Your task to perform on an android device: Go to CNN.com Image 0: 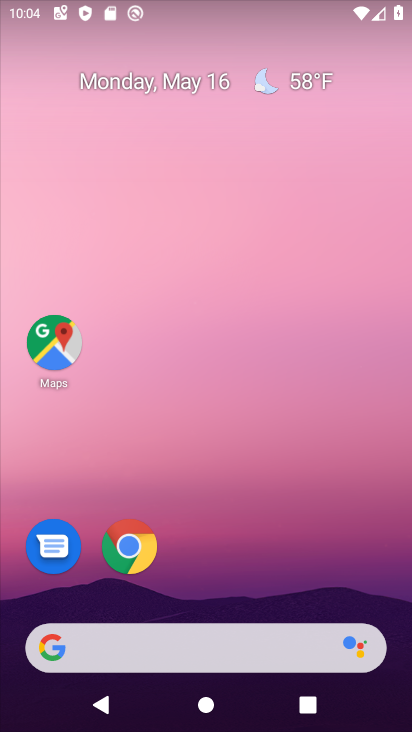
Step 0: click (128, 546)
Your task to perform on an android device: Go to CNN.com Image 1: 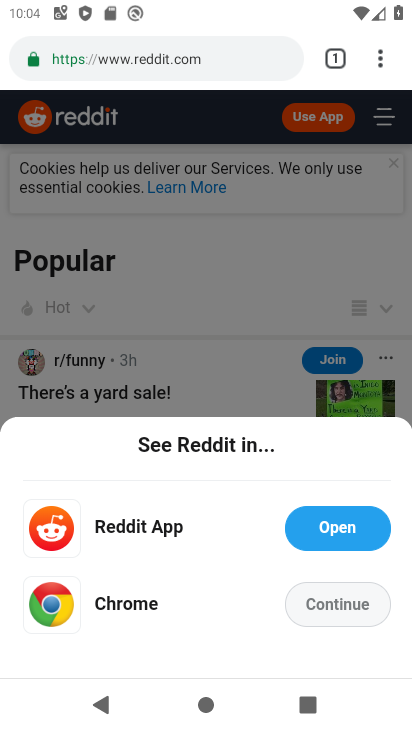
Step 1: click (382, 59)
Your task to perform on an android device: Go to CNN.com Image 2: 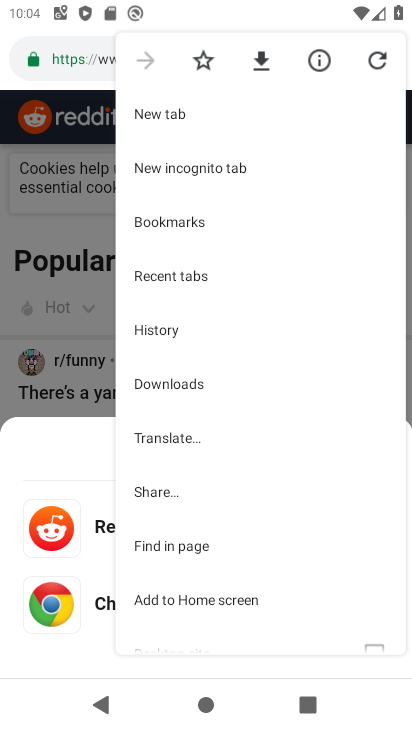
Step 2: click (172, 116)
Your task to perform on an android device: Go to CNN.com Image 3: 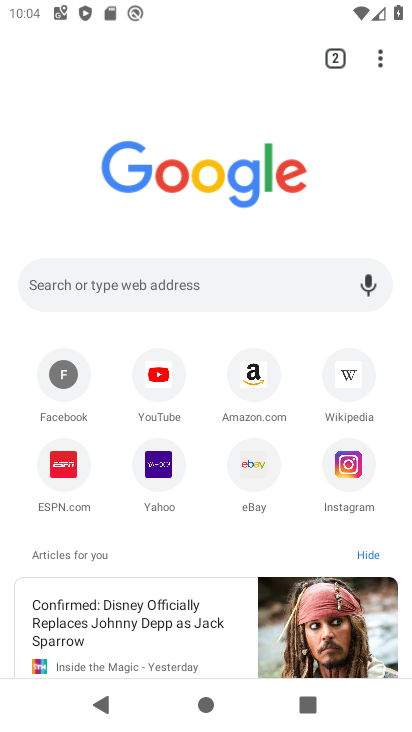
Step 3: click (184, 287)
Your task to perform on an android device: Go to CNN.com Image 4: 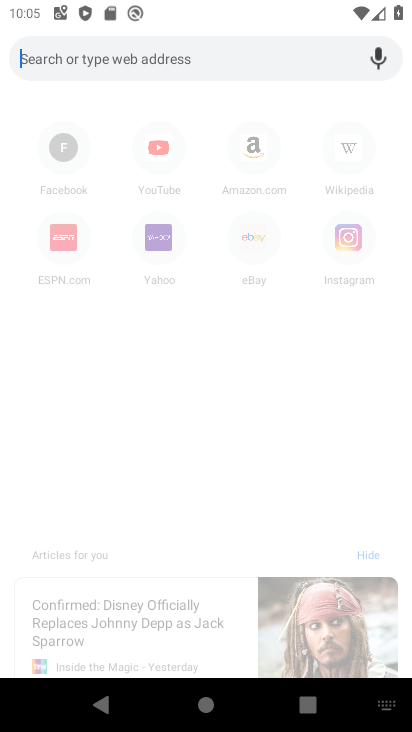
Step 4: type "CNN.com"
Your task to perform on an android device: Go to CNN.com Image 5: 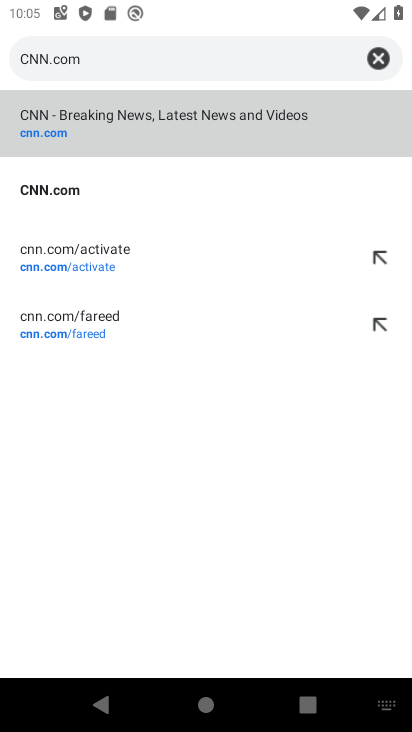
Step 5: click (92, 195)
Your task to perform on an android device: Go to CNN.com Image 6: 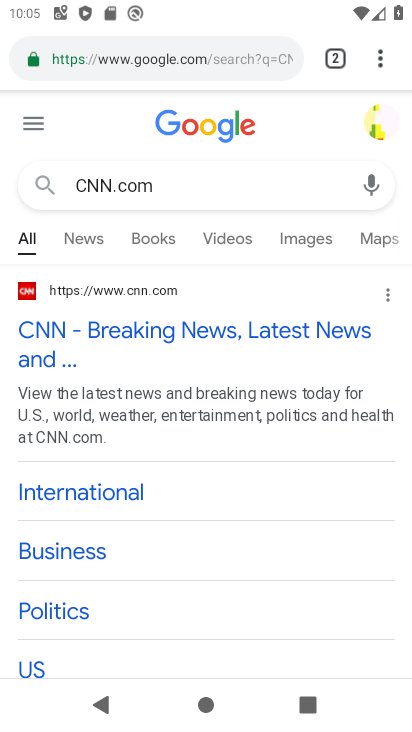
Step 6: click (90, 326)
Your task to perform on an android device: Go to CNN.com Image 7: 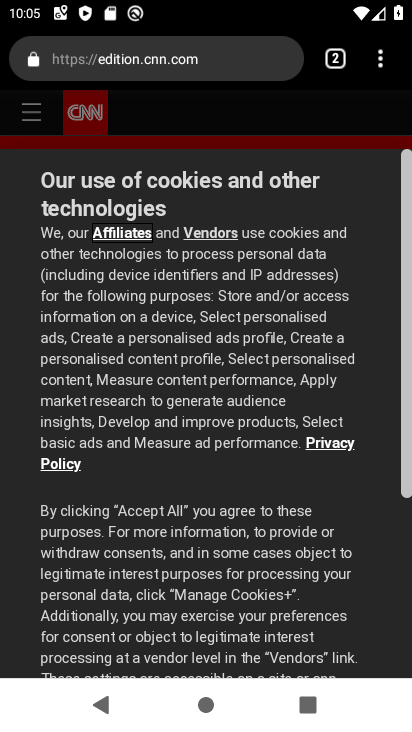
Step 7: task complete